Your task to perform on an android device: Open the map Image 0: 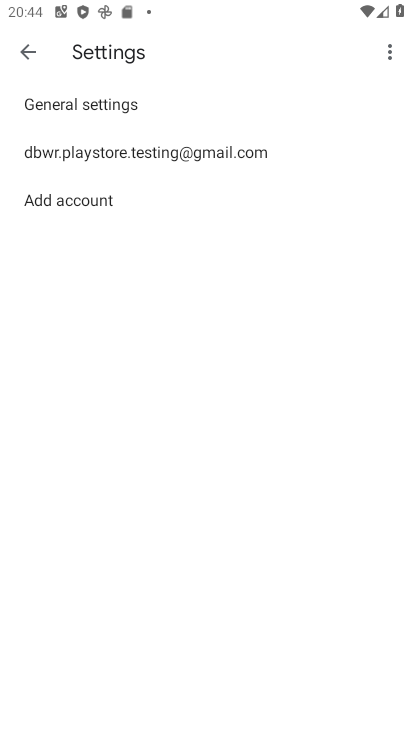
Step 0: press home button
Your task to perform on an android device: Open the map Image 1: 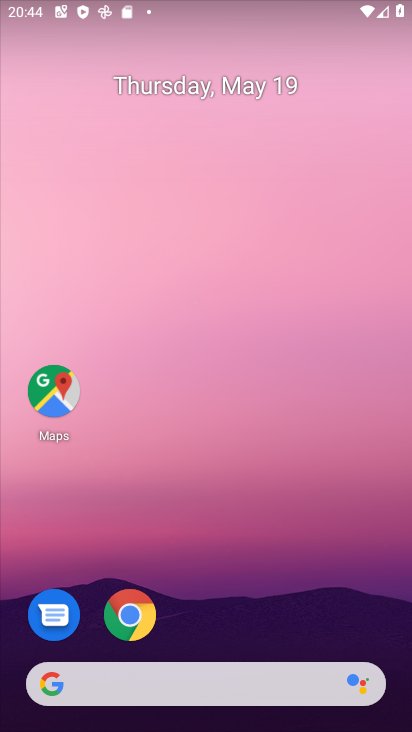
Step 1: click (63, 394)
Your task to perform on an android device: Open the map Image 2: 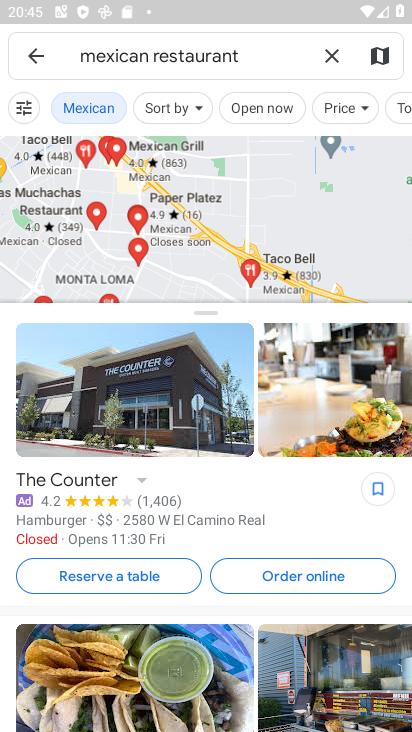
Step 2: task complete